Your task to perform on an android device: allow cookies in the chrome app Image 0: 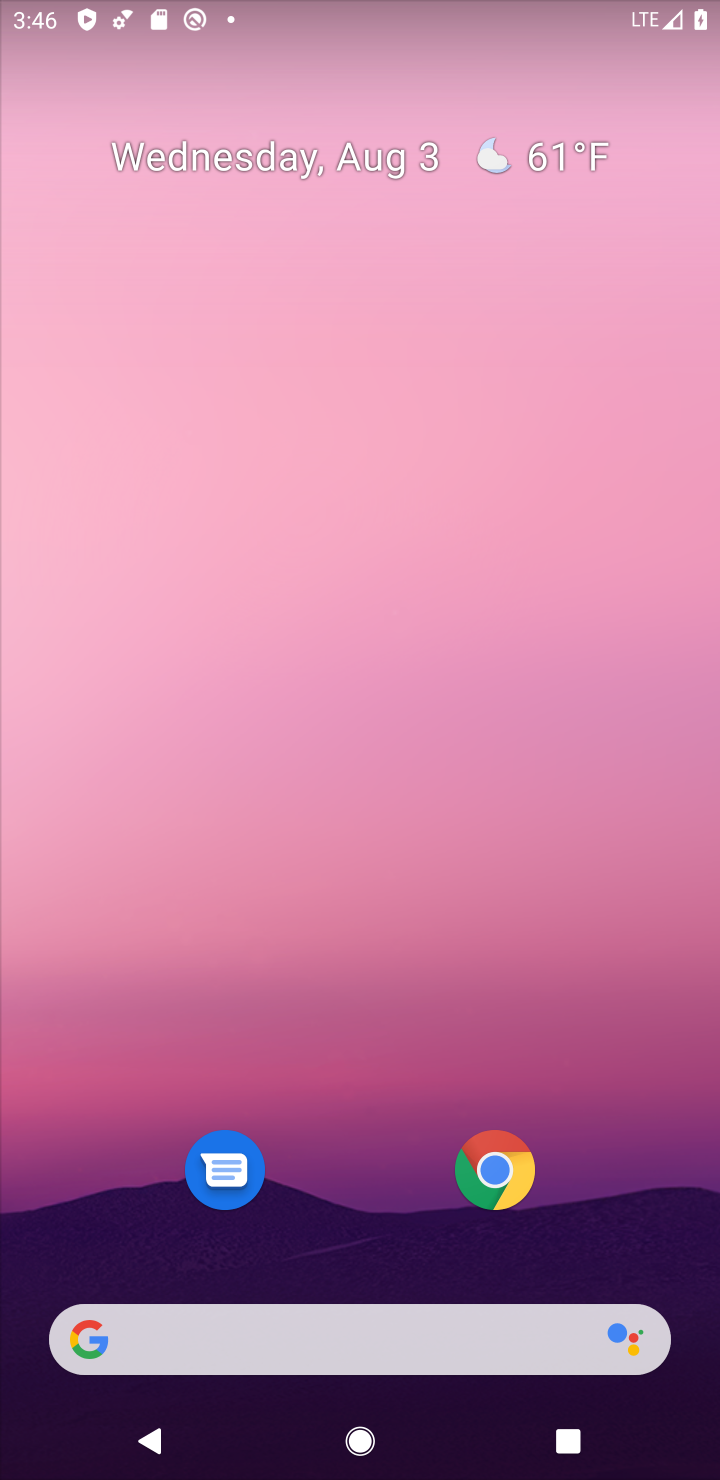
Step 0: click (485, 1178)
Your task to perform on an android device: allow cookies in the chrome app Image 1: 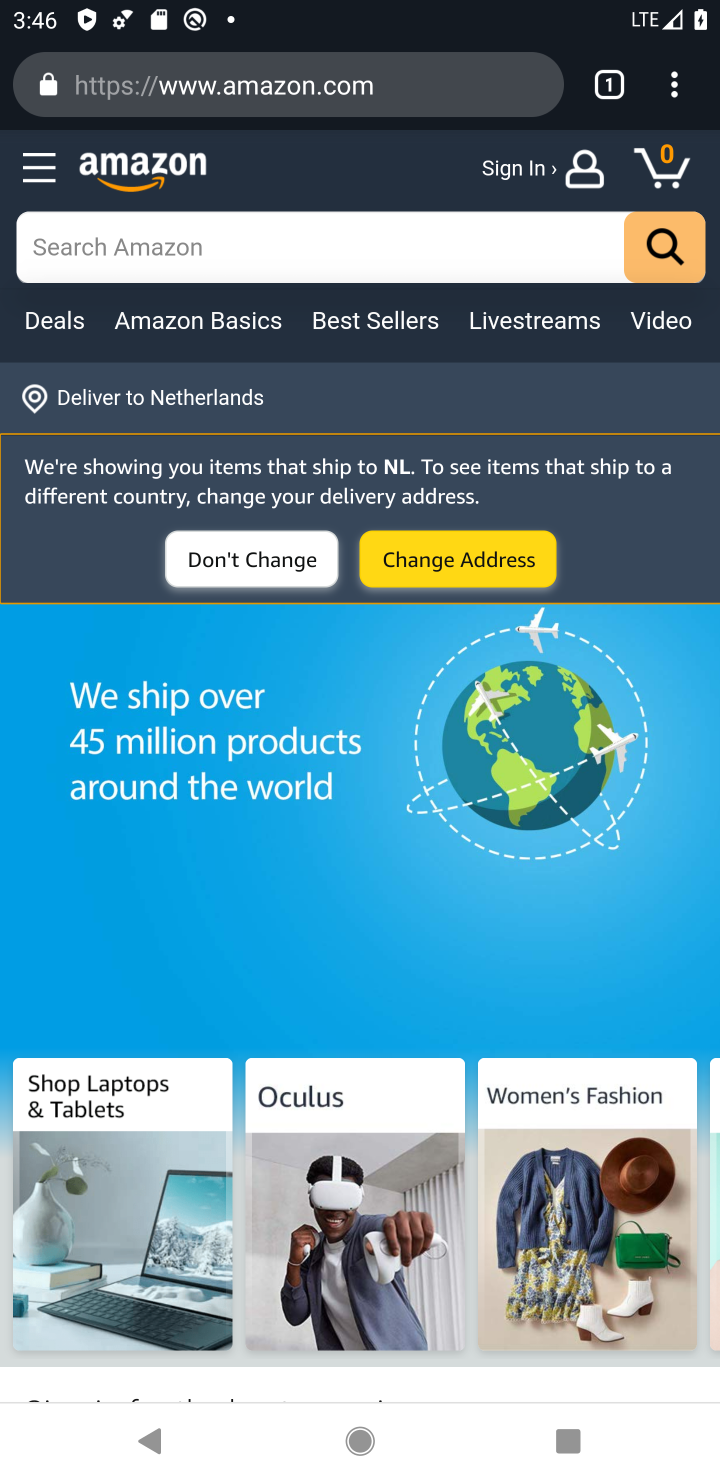
Step 1: click (675, 91)
Your task to perform on an android device: allow cookies in the chrome app Image 2: 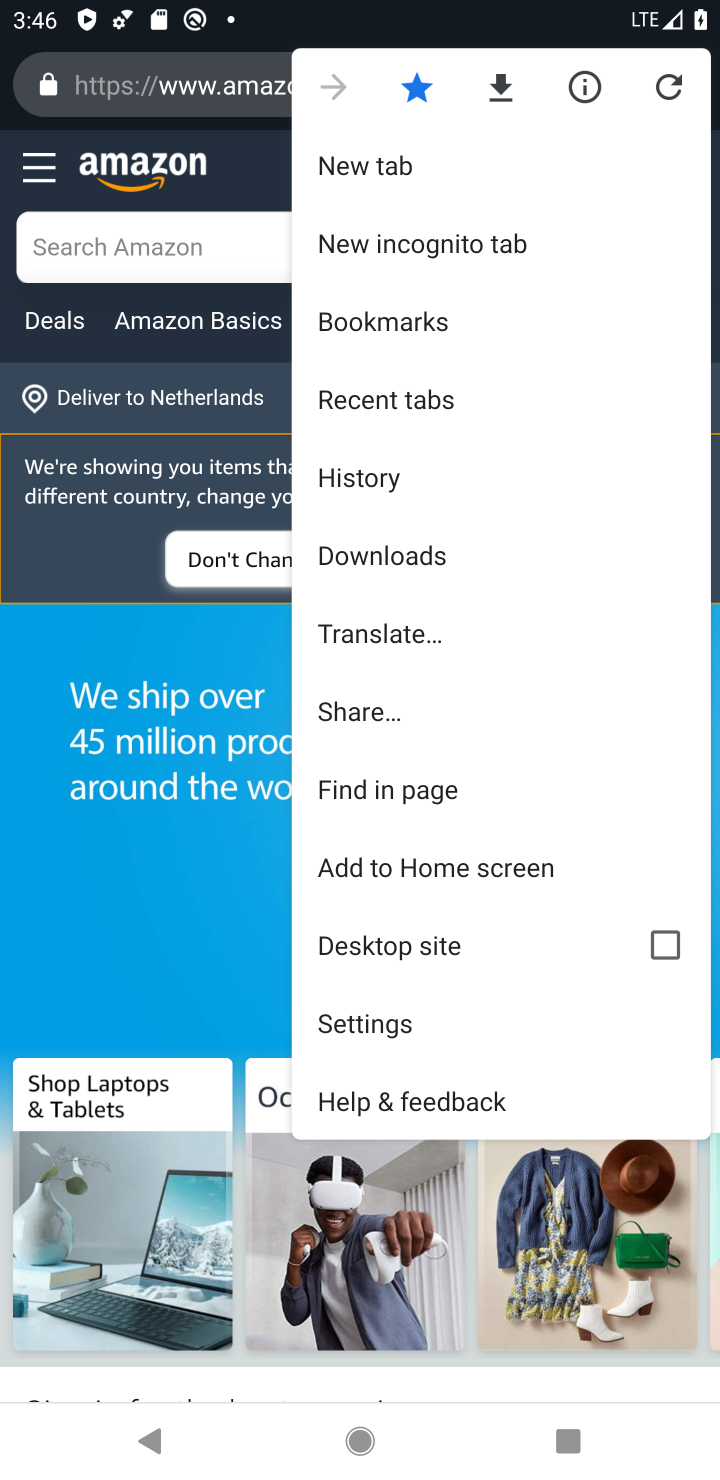
Step 2: click (340, 1032)
Your task to perform on an android device: allow cookies in the chrome app Image 3: 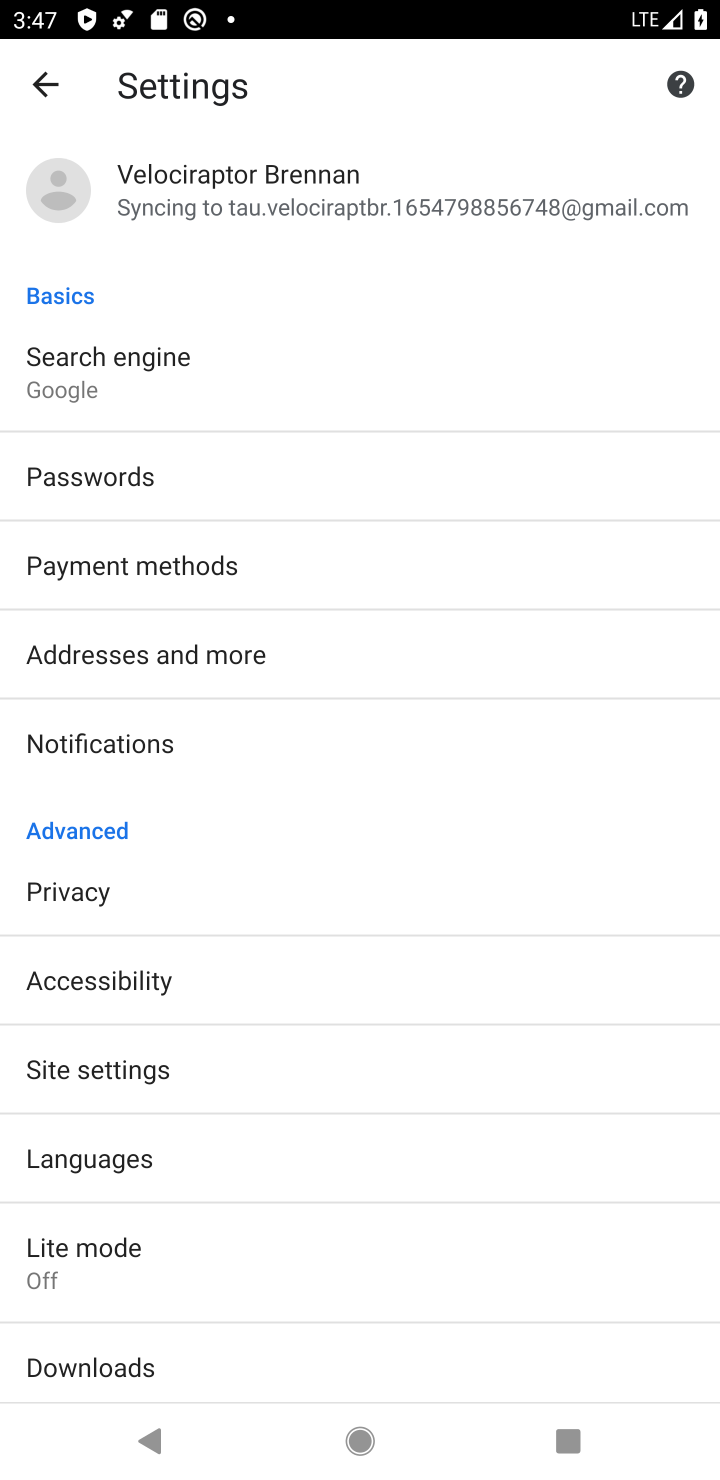
Step 3: click (90, 1064)
Your task to perform on an android device: allow cookies in the chrome app Image 4: 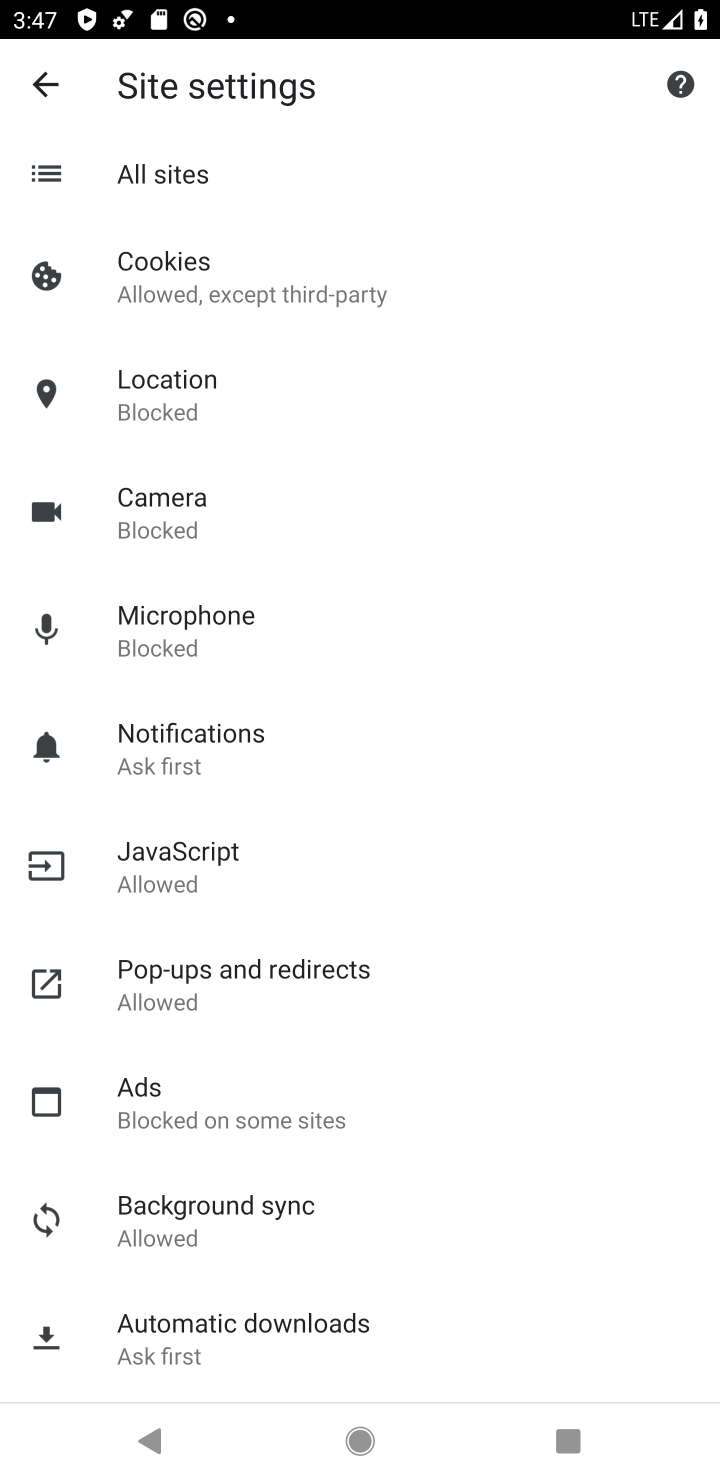
Step 4: click (222, 245)
Your task to perform on an android device: allow cookies in the chrome app Image 5: 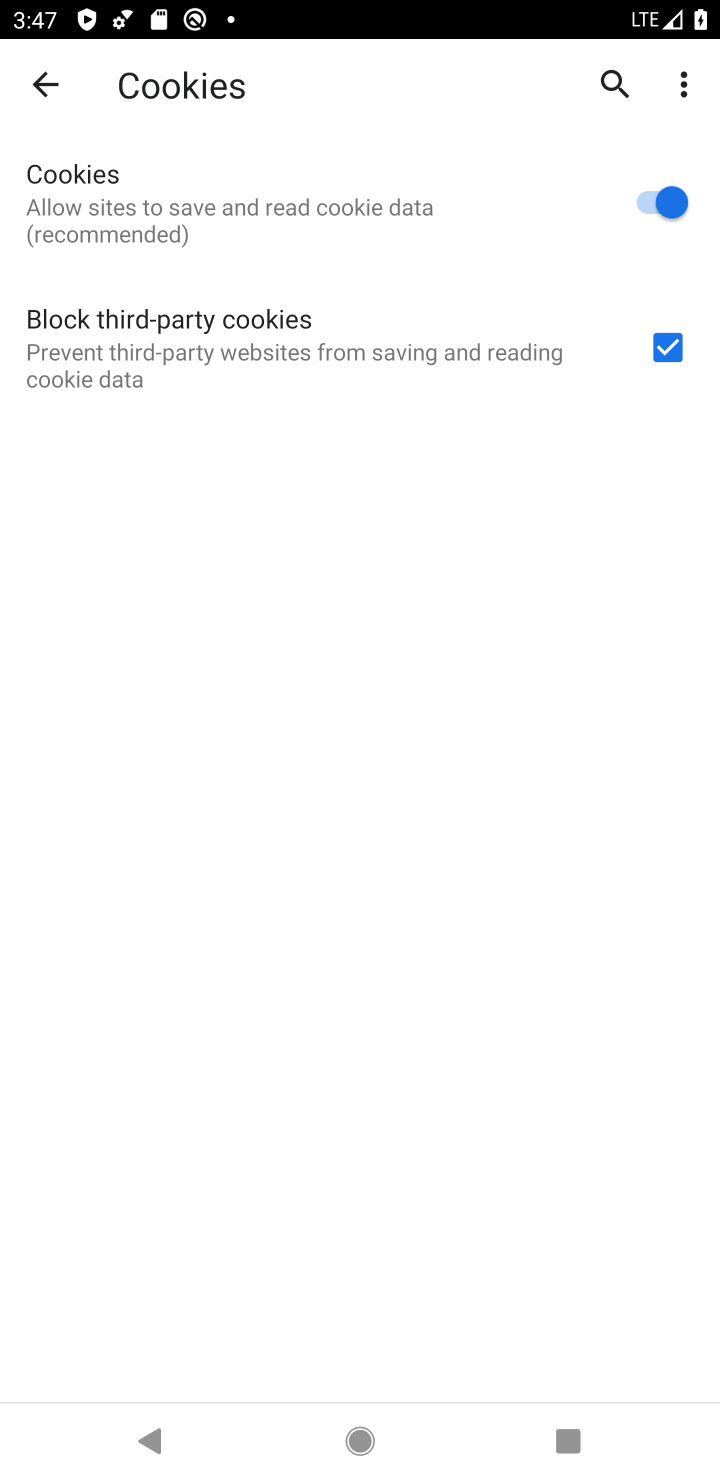
Step 5: task complete